Your task to perform on an android device: Go to Android settings Image 0: 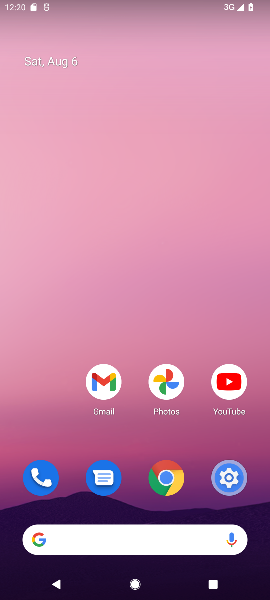
Step 0: click (219, 482)
Your task to perform on an android device: Go to Android settings Image 1: 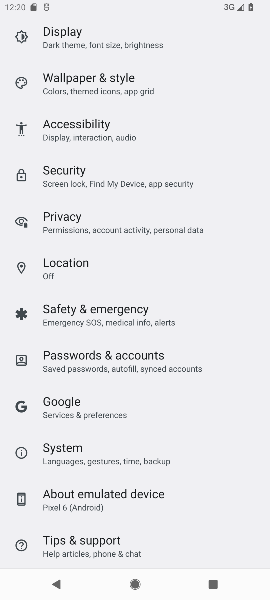
Step 1: task complete